Your task to perform on an android device: turn off data saver in the chrome app Image 0: 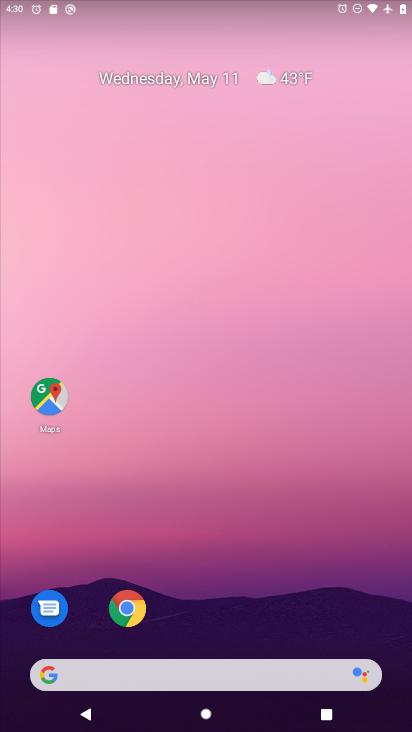
Step 0: click (130, 611)
Your task to perform on an android device: turn off data saver in the chrome app Image 1: 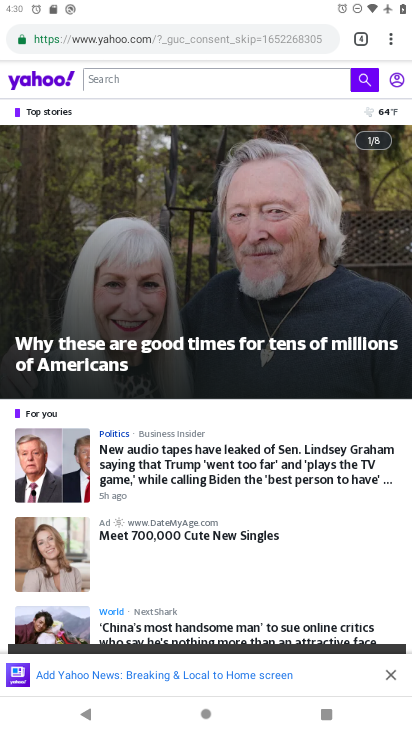
Step 1: click (391, 45)
Your task to perform on an android device: turn off data saver in the chrome app Image 2: 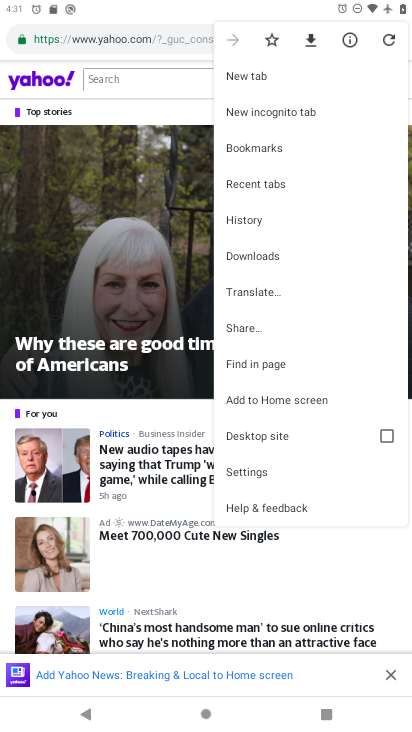
Step 2: click (247, 469)
Your task to perform on an android device: turn off data saver in the chrome app Image 3: 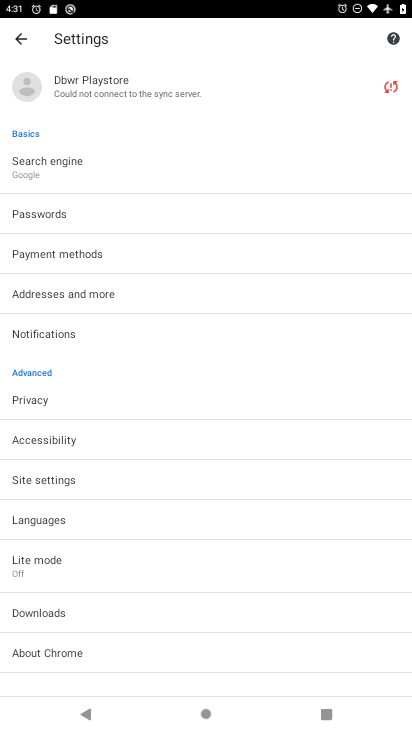
Step 3: click (40, 562)
Your task to perform on an android device: turn off data saver in the chrome app Image 4: 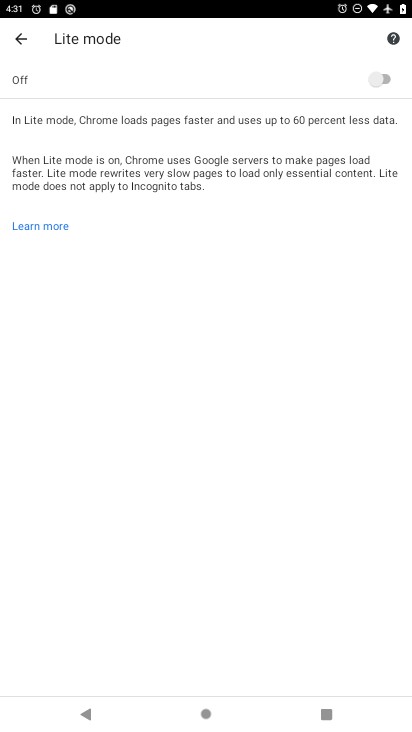
Step 4: task complete